Your task to perform on an android device: open a new tab in the chrome app Image 0: 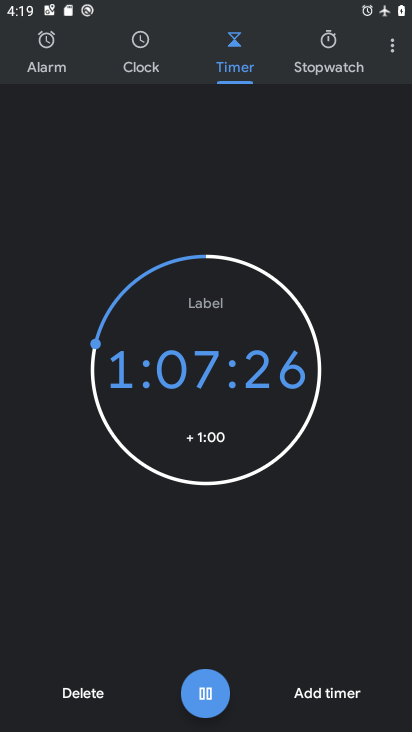
Step 0: press home button
Your task to perform on an android device: open a new tab in the chrome app Image 1: 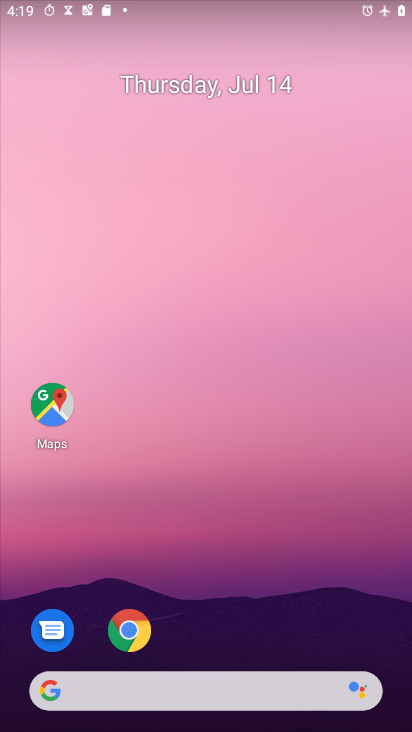
Step 1: drag from (261, 544) to (309, 174)
Your task to perform on an android device: open a new tab in the chrome app Image 2: 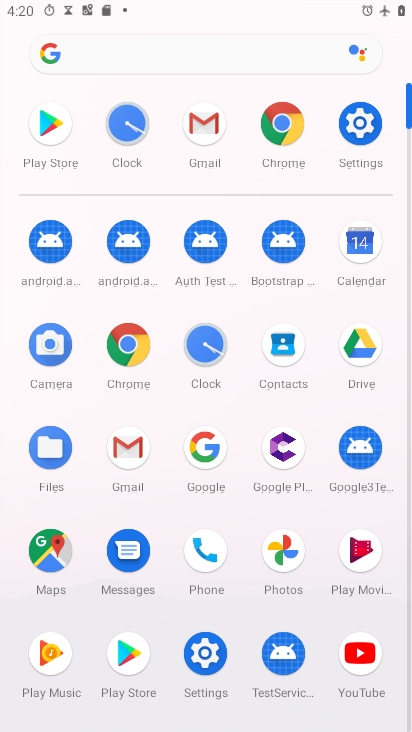
Step 2: click (120, 339)
Your task to perform on an android device: open a new tab in the chrome app Image 3: 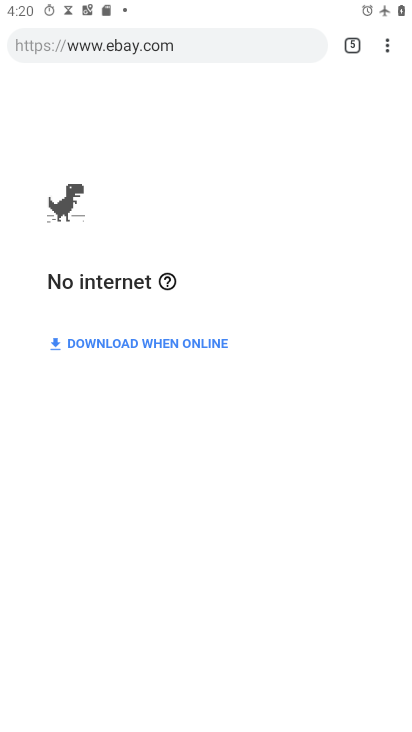
Step 3: click (390, 48)
Your task to perform on an android device: open a new tab in the chrome app Image 4: 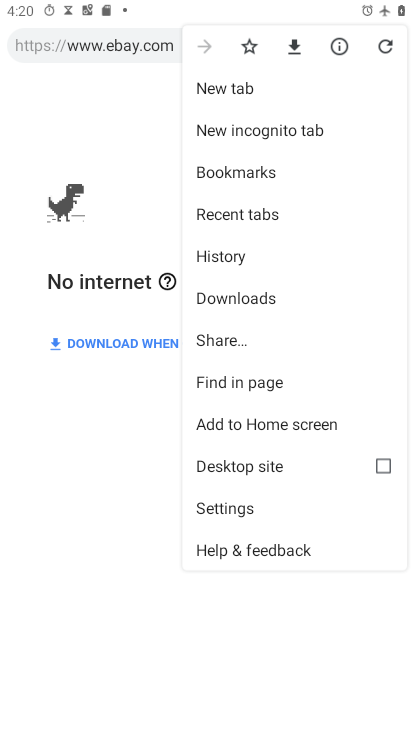
Step 4: click (233, 82)
Your task to perform on an android device: open a new tab in the chrome app Image 5: 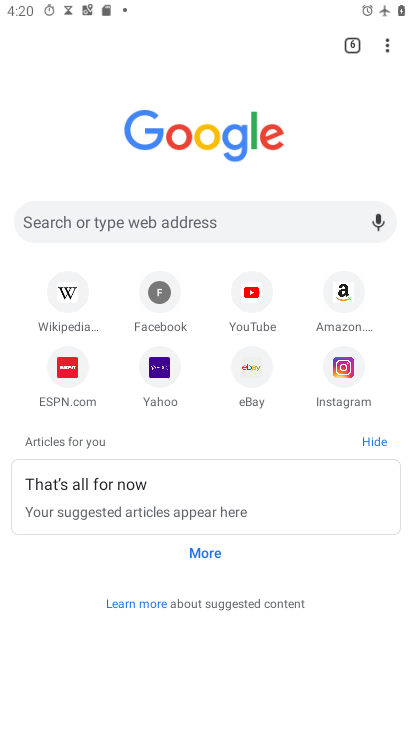
Step 5: task complete